Your task to perform on an android device: Open the web browser Image 0: 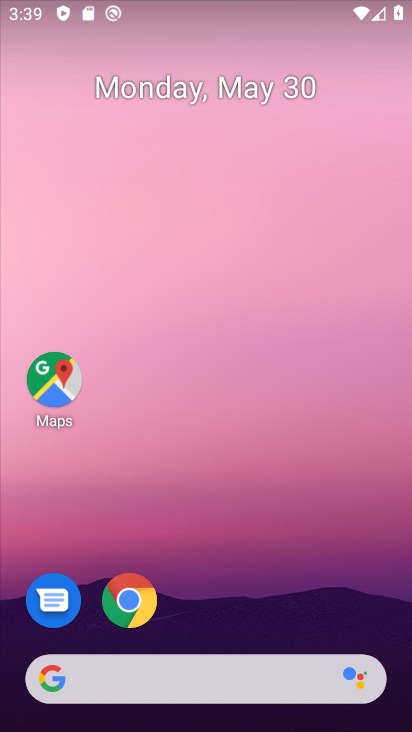
Step 0: click (130, 618)
Your task to perform on an android device: Open the web browser Image 1: 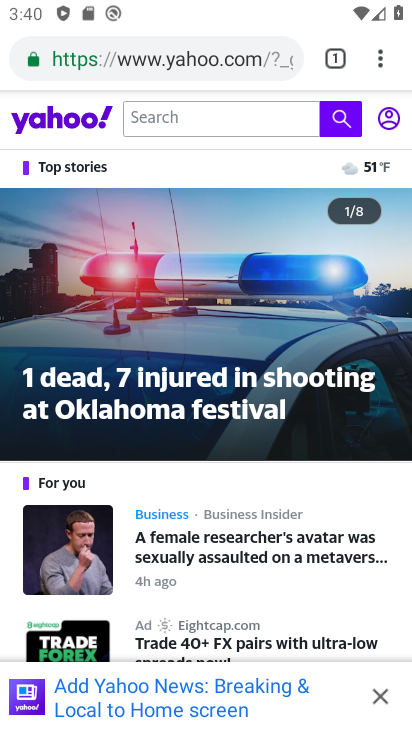
Step 1: task complete